Your task to perform on an android device: turn off improve location accuracy Image 0: 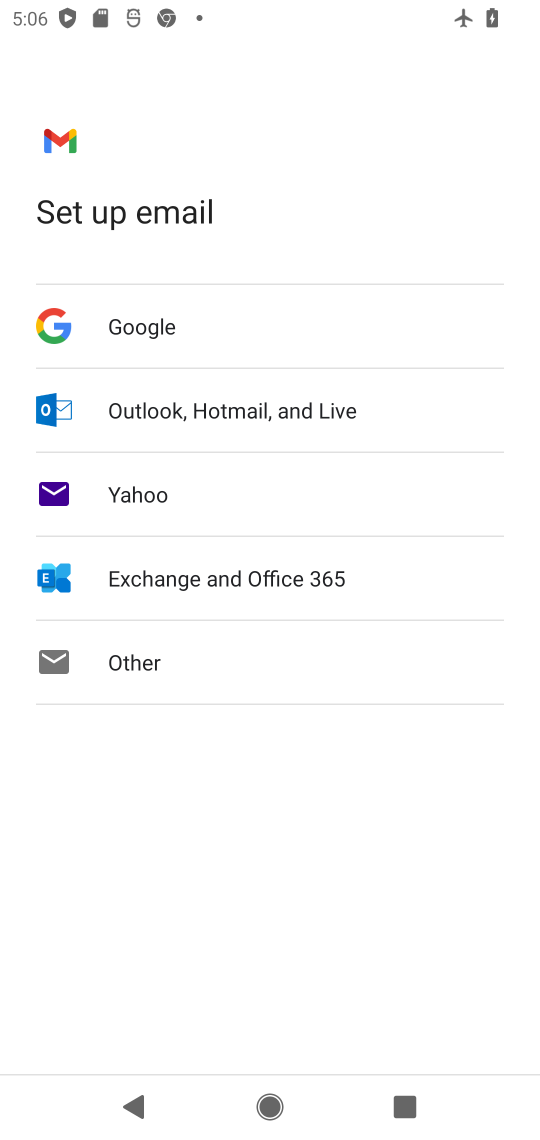
Step 0: press home button
Your task to perform on an android device: turn off improve location accuracy Image 1: 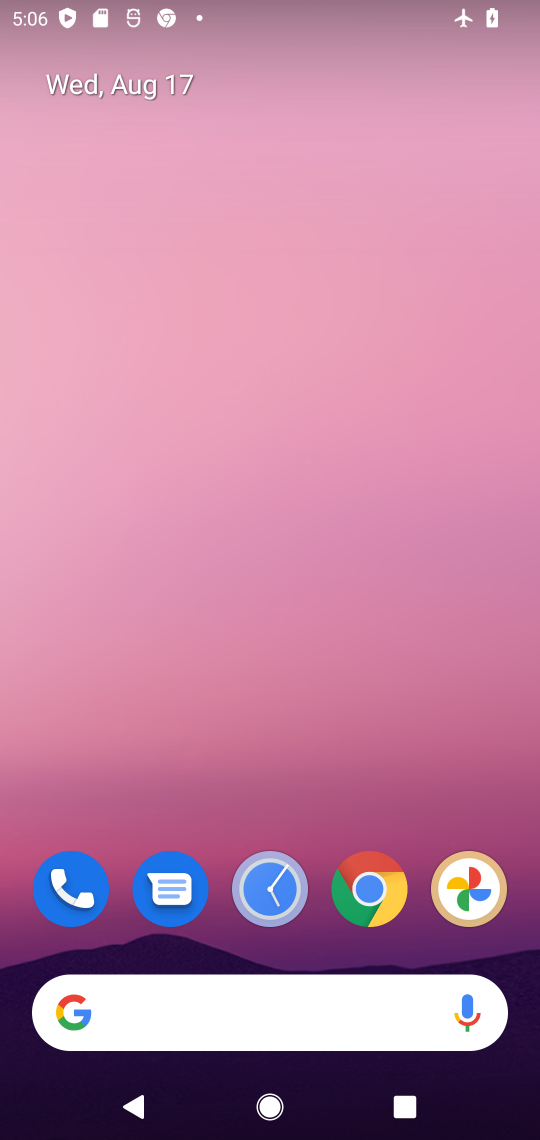
Step 1: drag from (270, 812) to (305, 54)
Your task to perform on an android device: turn off improve location accuracy Image 2: 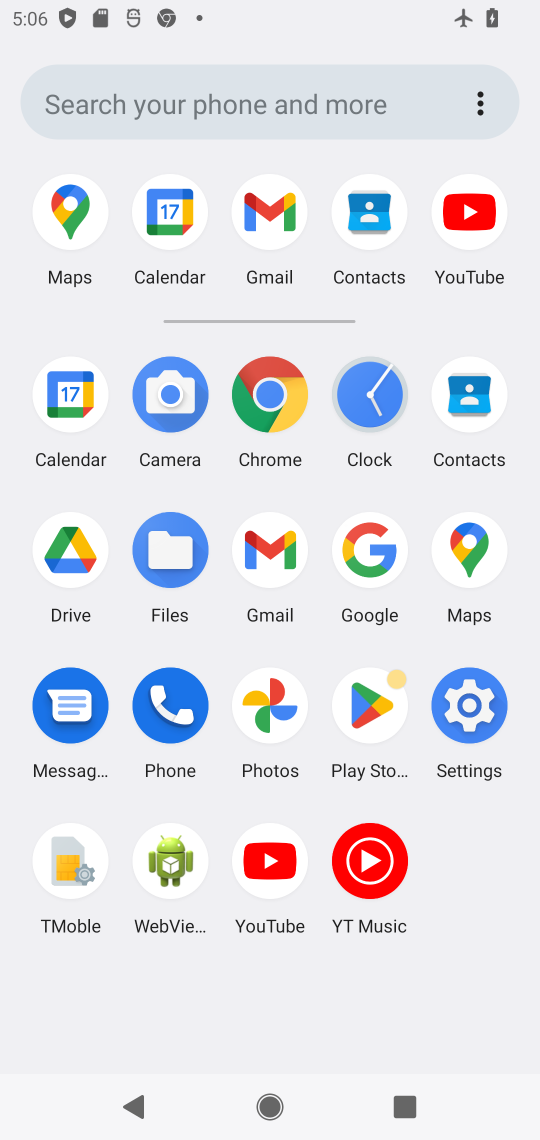
Step 2: click (468, 708)
Your task to perform on an android device: turn off improve location accuracy Image 3: 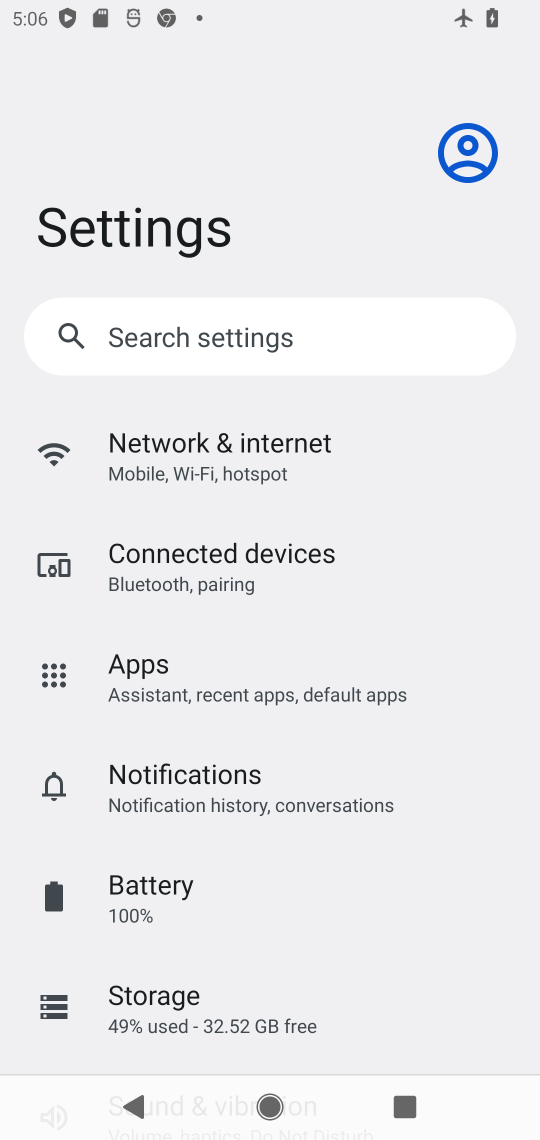
Step 3: drag from (308, 952) to (313, 444)
Your task to perform on an android device: turn off improve location accuracy Image 4: 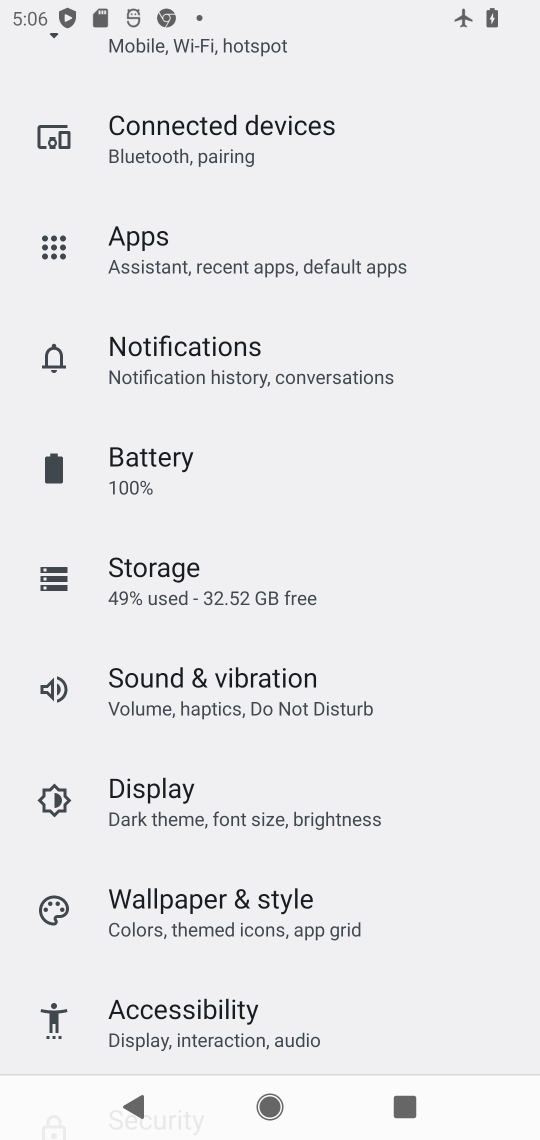
Step 4: drag from (372, 996) to (376, 498)
Your task to perform on an android device: turn off improve location accuracy Image 5: 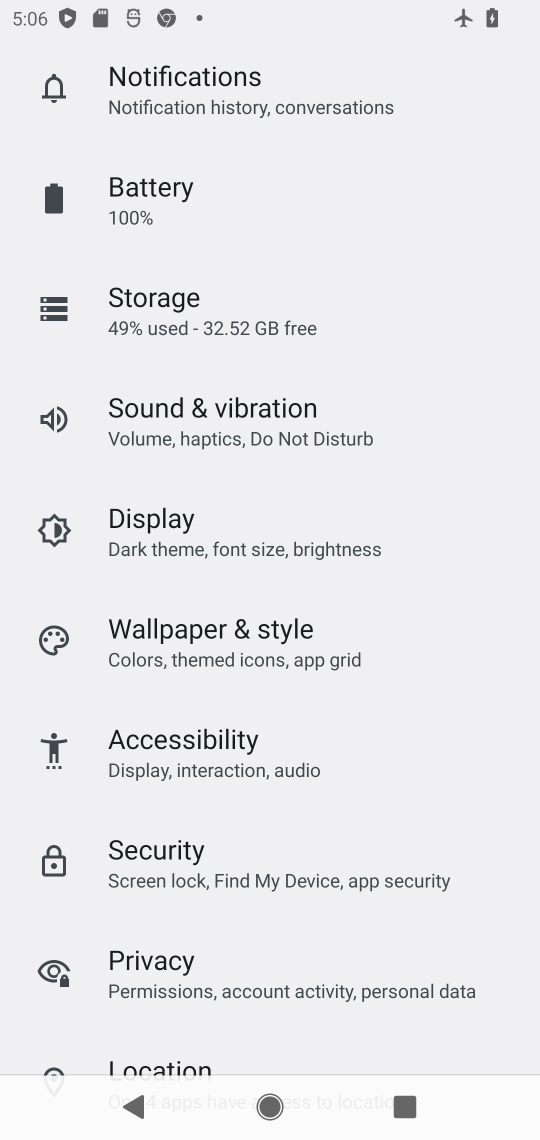
Step 5: drag from (319, 907) to (332, 409)
Your task to perform on an android device: turn off improve location accuracy Image 6: 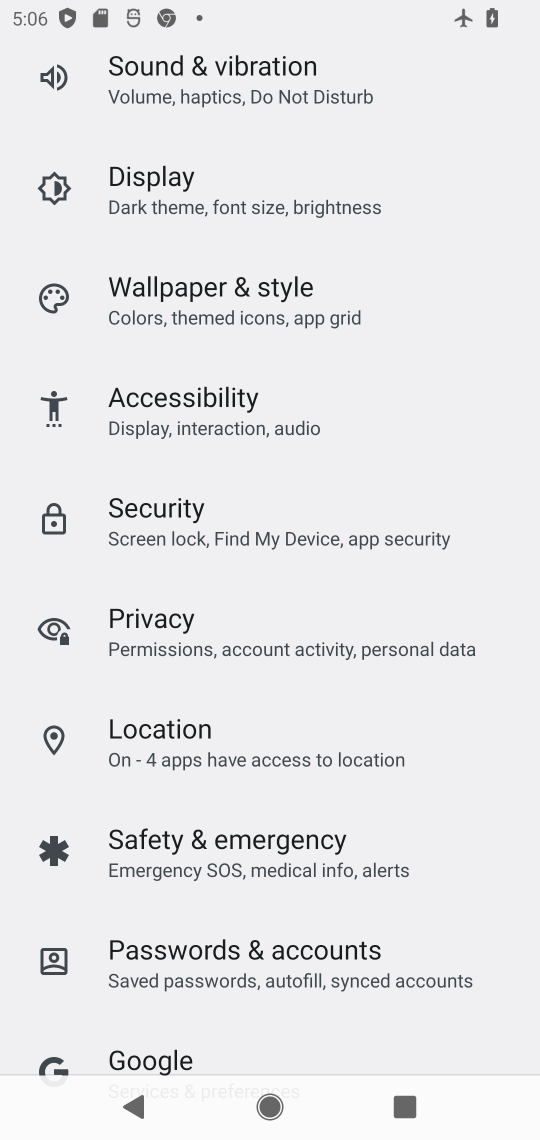
Step 6: click (177, 728)
Your task to perform on an android device: turn off improve location accuracy Image 7: 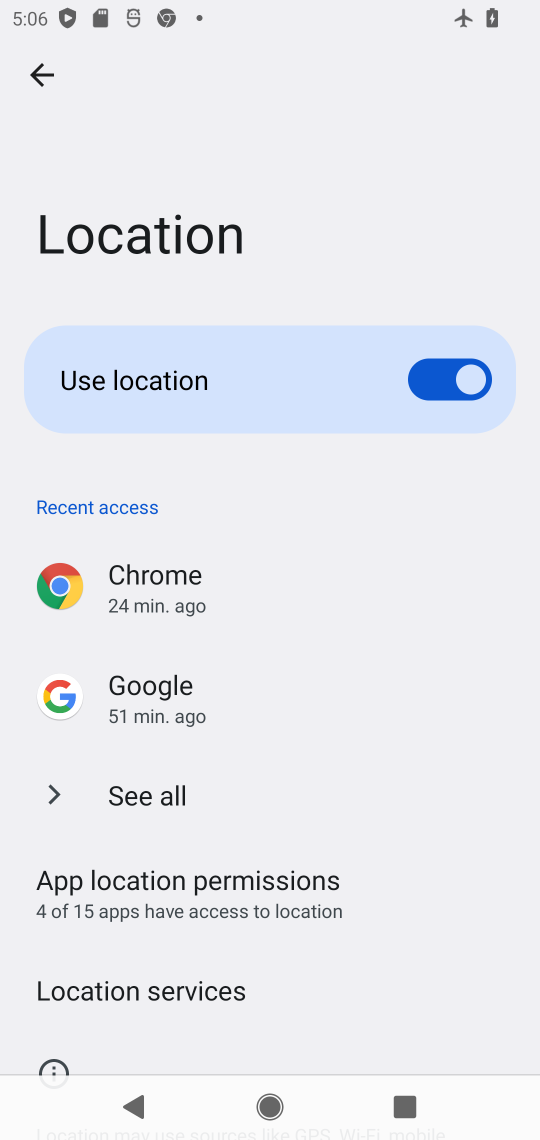
Step 7: click (146, 987)
Your task to perform on an android device: turn off improve location accuracy Image 8: 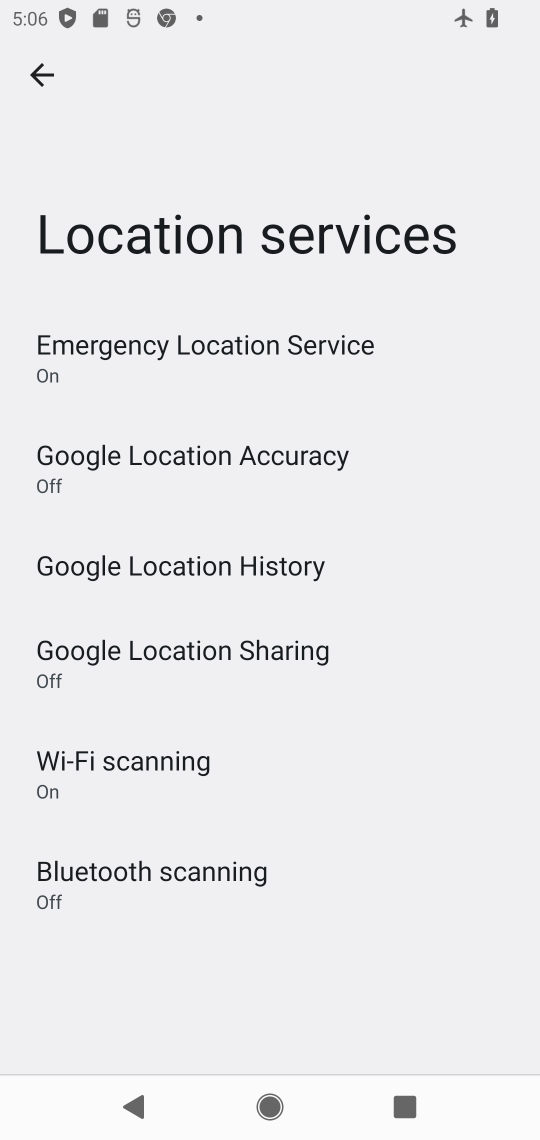
Step 8: click (212, 446)
Your task to perform on an android device: turn off improve location accuracy Image 9: 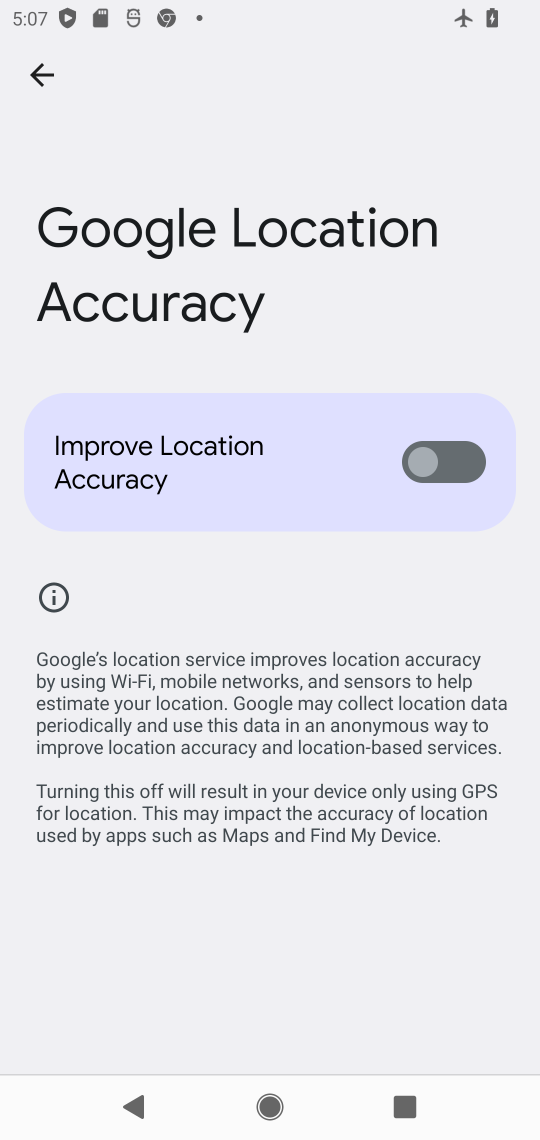
Step 9: task complete